Your task to perform on an android device: turn vacation reply on in the gmail app Image 0: 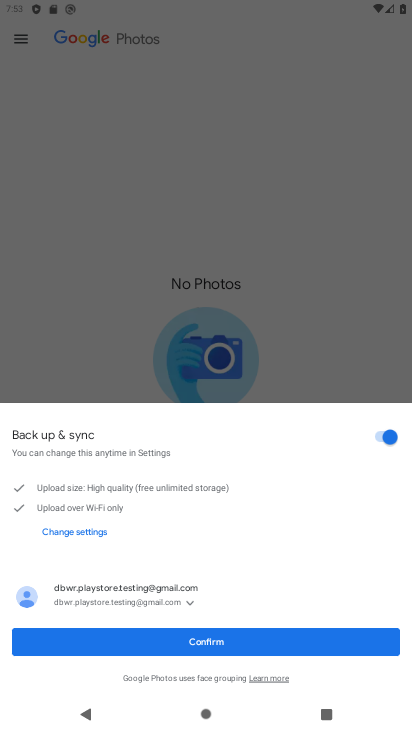
Step 0: click (150, 663)
Your task to perform on an android device: turn vacation reply on in the gmail app Image 1: 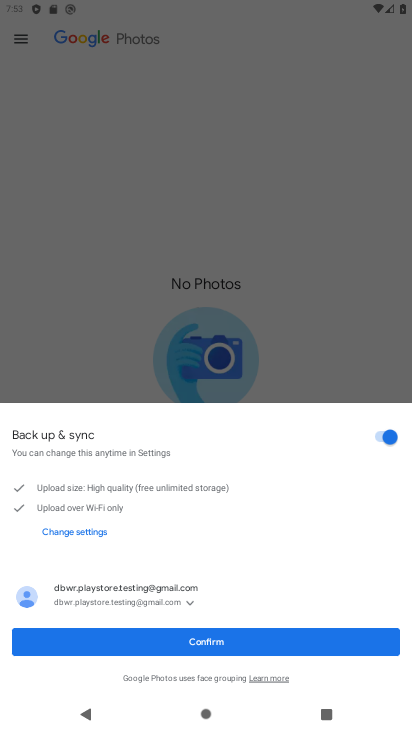
Step 1: click (148, 656)
Your task to perform on an android device: turn vacation reply on in the gmail app Image 2: 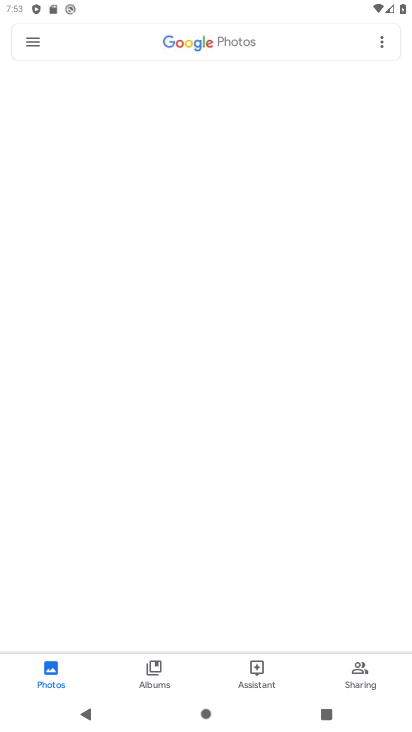
Step 2: press home button
Your task to perform on an android device: turn vacation reply on in the gmail app Image 3: 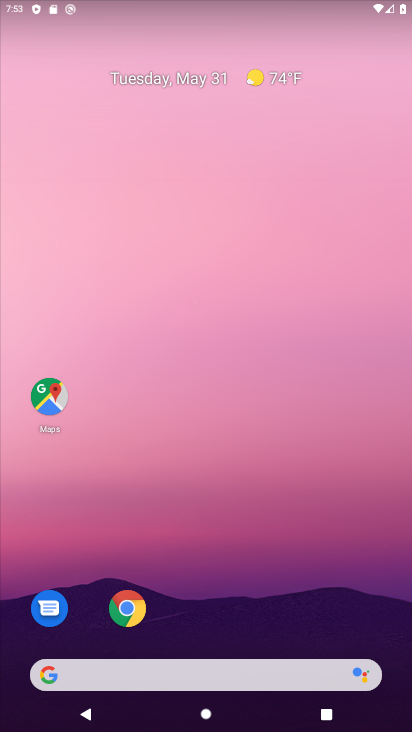
Step 3: drag from (174, 665) to (85, 83)
Your task to perform on an android device: turn vacation reply on in the gmail app Image 4: 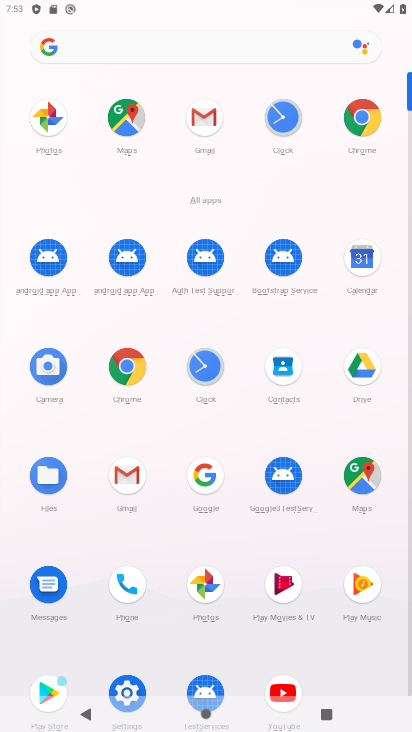
Step 4: click (123, 485)
Your task to perform on an android device: turn vacation reply on in the gmail app Image 5: 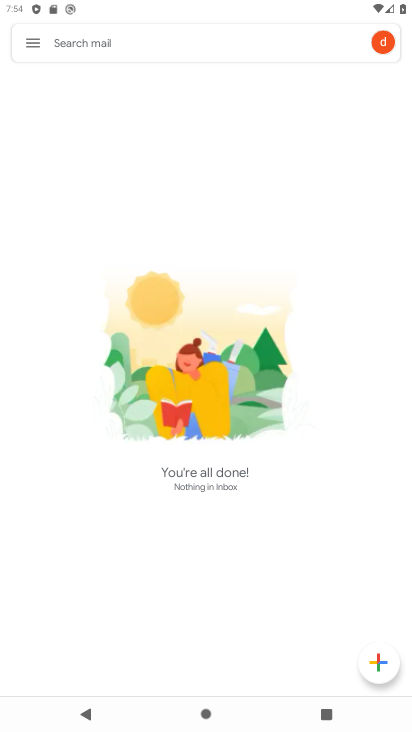
Step 5: click (41, 35)
Your task to perform on an android device: turn vacation reply on in the gmail app Image 6: 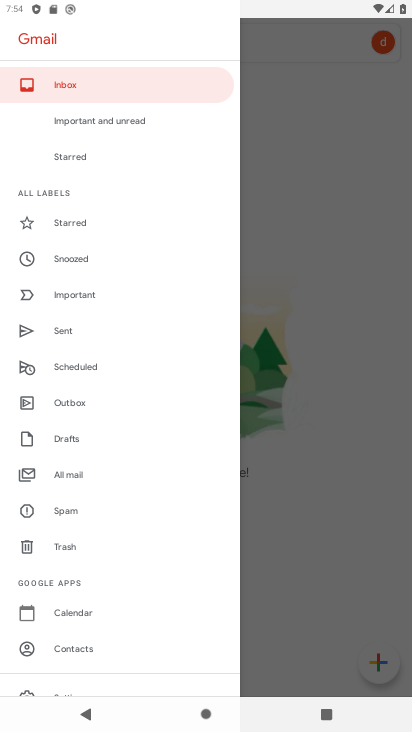
Step 6: drag from (88, 580) to (63, 6)
Your task to perform on an android device: turn vacation reply on in the gmail app Image 7: 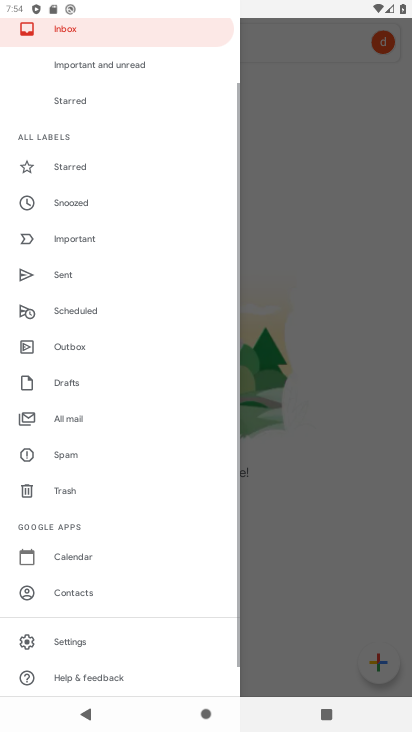
Step 7: click (88, 630)
Your task to perform on an android device: turn vacation reply on in the gmail app Image 8: 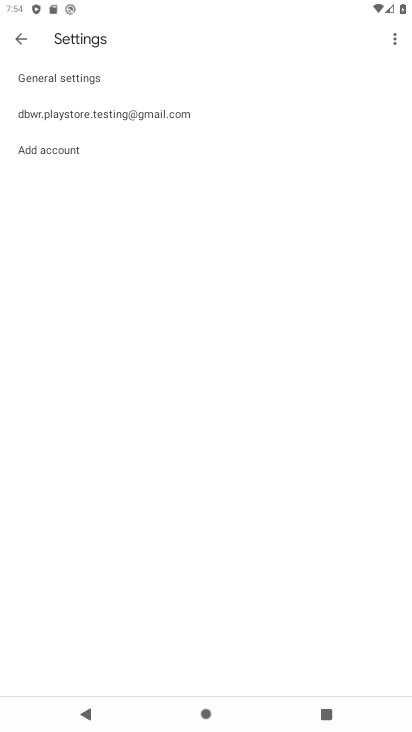
Step 8: click (38, 104)
Your task to perform on an android device: turn vacation reply on in the gmail app Image 9: 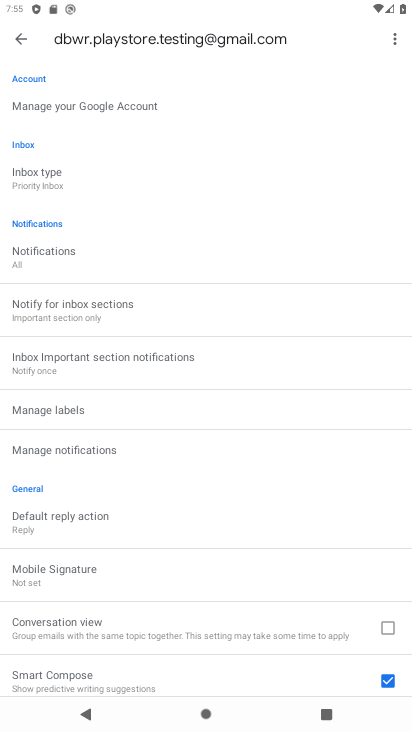
Step 9: drag from (229, 564) to (158, 101)
Your task to perform on an android device: turn vacation reply on in the gmail app Image 10: 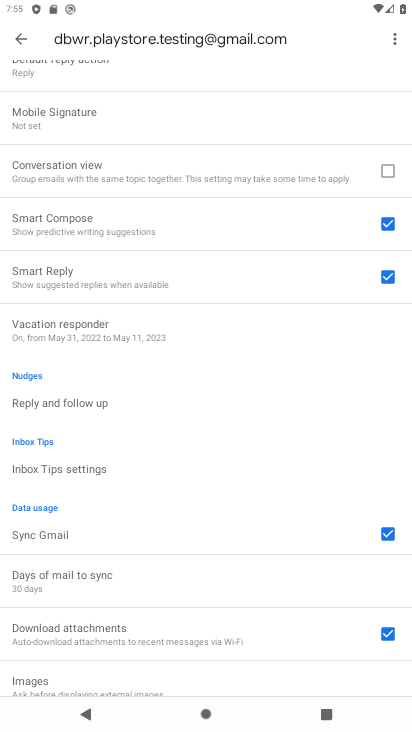
Step 10: drag from (184, 628) to (152, 119)
Your task to perform on an android device: turn vacation reply on in the gmail app Image 11: 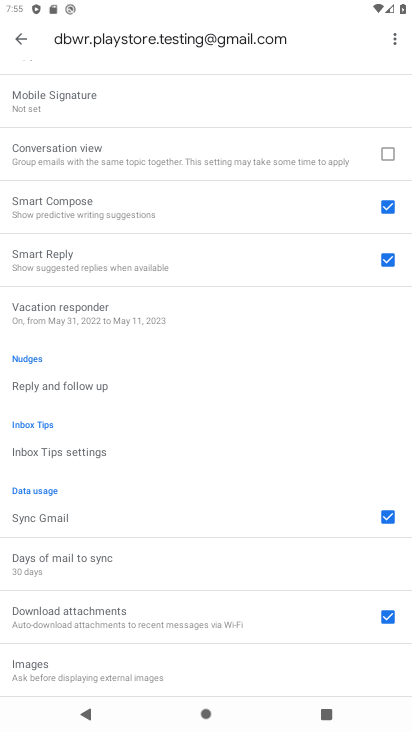
Step 11: click (116, 318)
Your task to perform on an android device: turn vacation reply on in the gmail app Image 12: 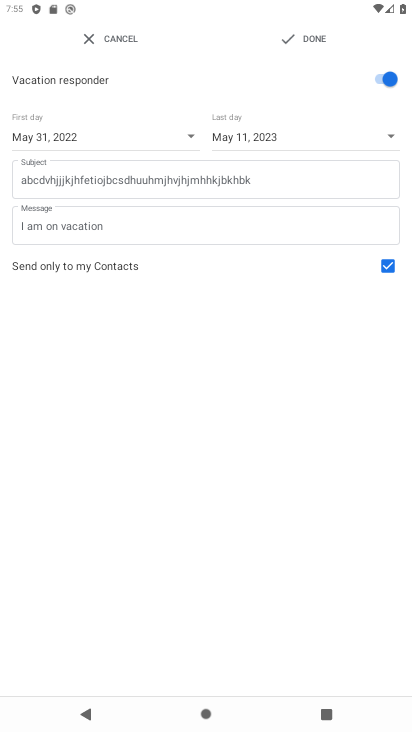
Step 12: click (306, 46)
Your task to perform on an android device: turn vacation reply on in the gmail app Image 13: 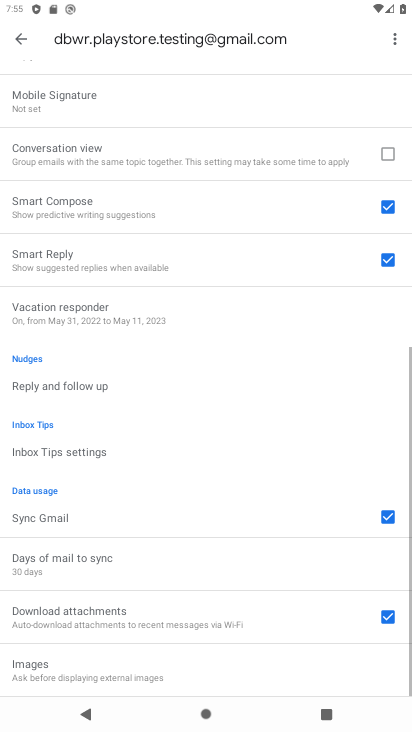
Step 13: task complete